Your task to perform on an android device: open a bookmark in the chrome app Image 0: 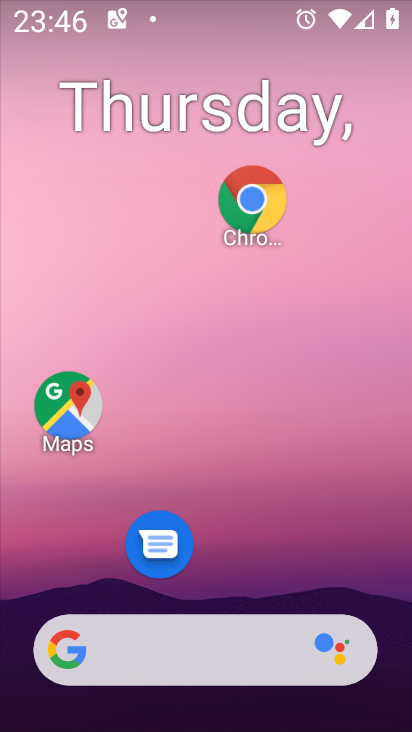
Step 0: click (260, 206)
Your task to perform on an android device: open a bookmark in the chrome app Image 1: 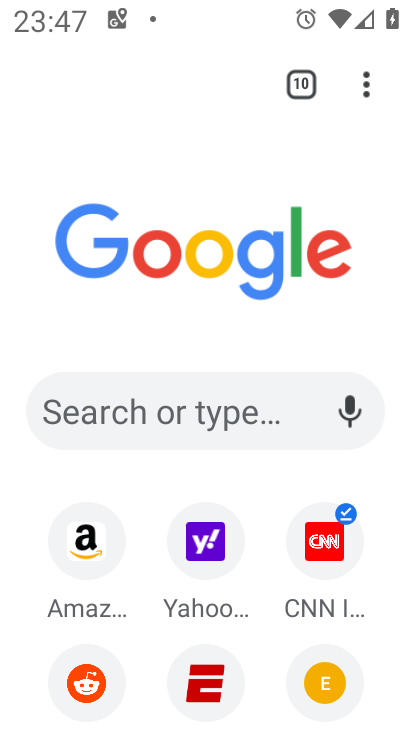
Step 1: click (362, 76)
Your task to perform on an android device: open a bookmark in the chrome app Image 2: 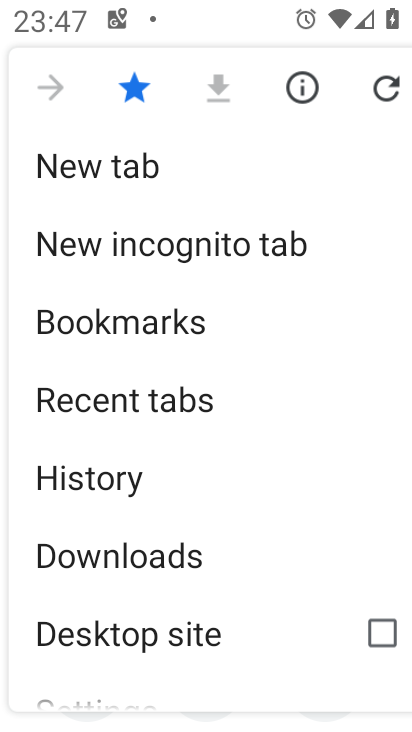
Step 2: click (183, 314)
Your task to perform on an android device: open a bookmark in the chrome app Image 3: 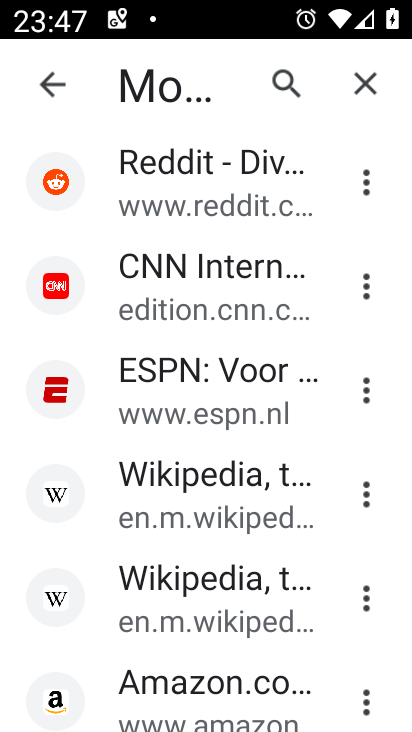
Step 3: drag from (103, 691) to (219, 251)
Your task to perform on an android device: open a bookmark in the chrome app Image 4: 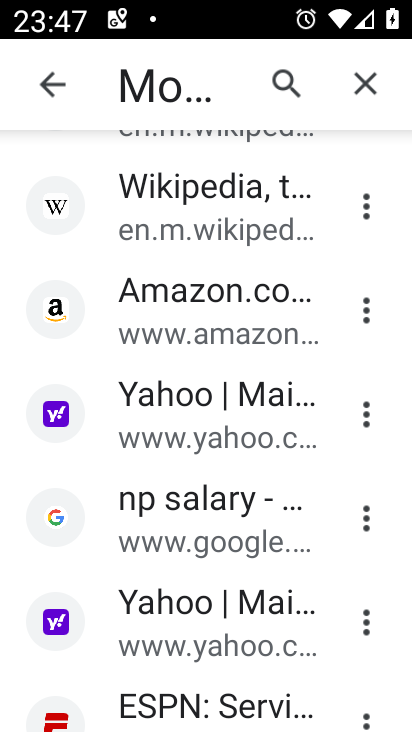
Step 4: click (153, 709)
Your task to perform on an android device: open a bookmark in the chrome app Image 5: 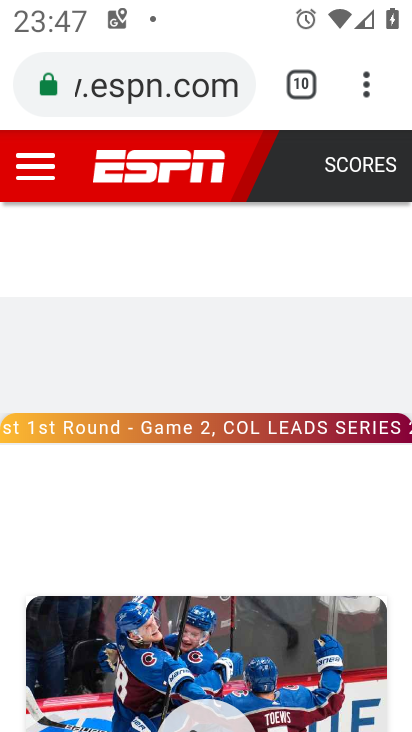
Step 5: click (352, 88)
Your task to perform on an android device: open a bookmark in the chrome app Image 6: 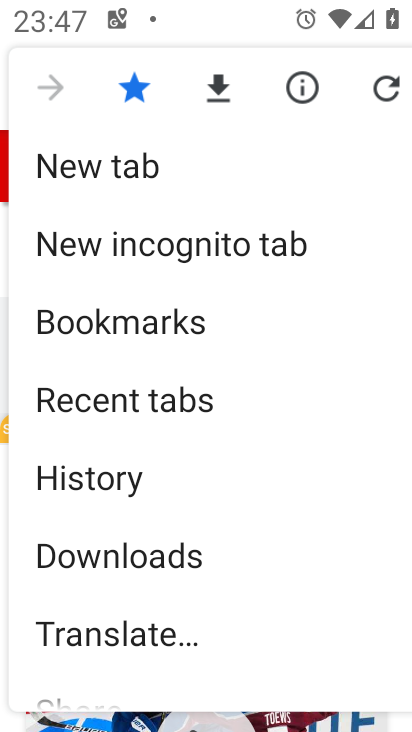
Step 6: click (182, 314)
Your task to perform on an android device: open a bookmark in the chrome app Image 7: 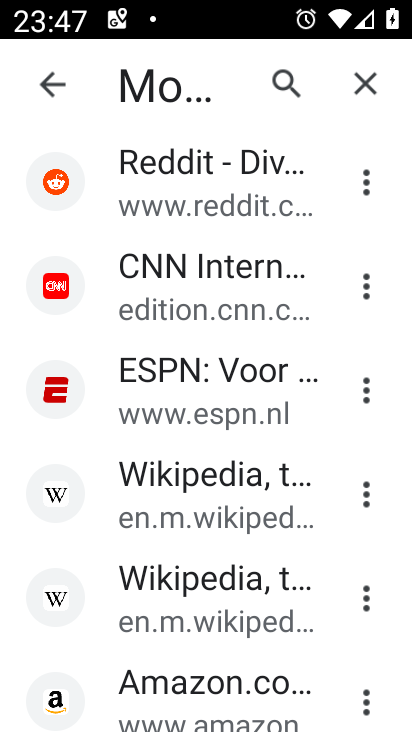
Step 7: click (184, 691)
Your task to perform on an android device: open a bookmark in the chrome app Image 8: 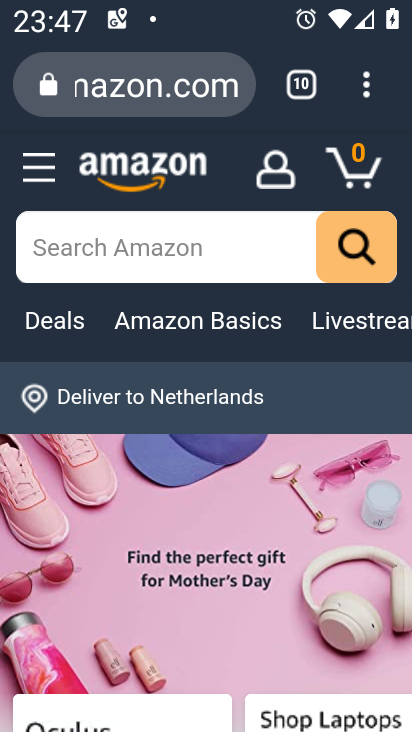
Step 8: task complete